Your task to perform on an android device: Open settings Image 0: 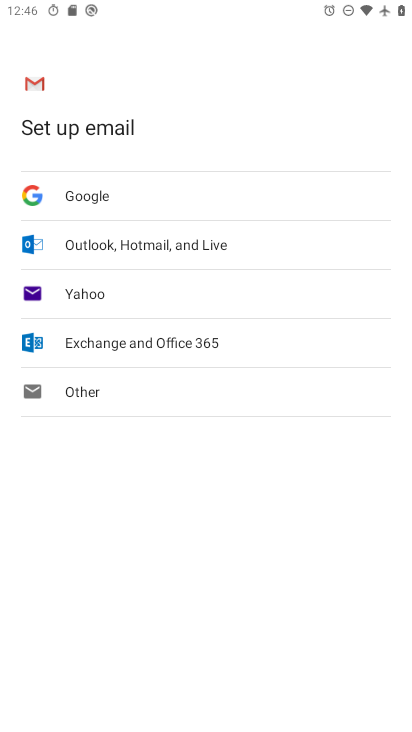
Step 0: press home button
Your task to perform on an android device: Open settings Image 1: 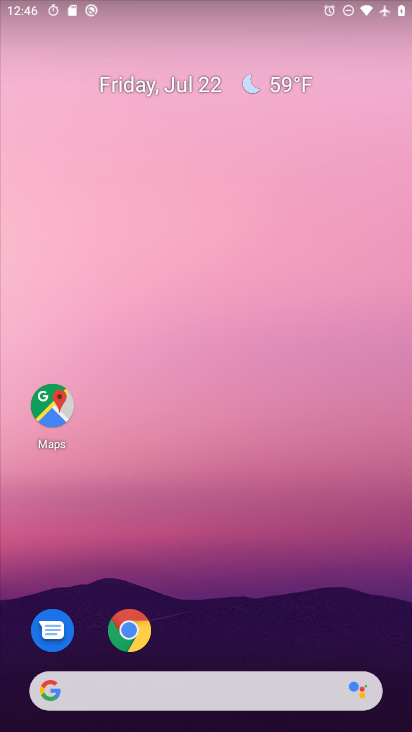
Step 1: drag from (214, 644) to (301, 66)
Your task to perform on an android device: Open settings Image 2: 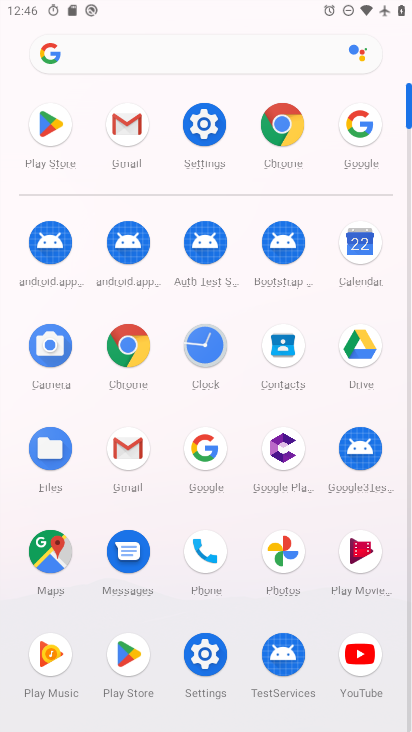
Step 2: click (214, 124)
Your task to perform on an android device: Open settings Image 3: 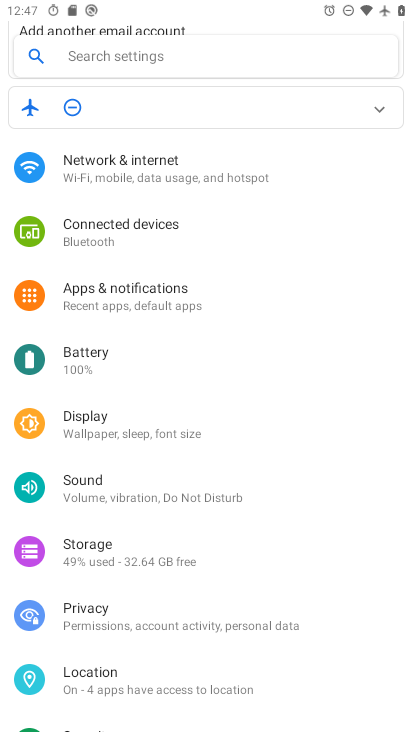
Step 3: task complete